Your task to perform on an android device: Do I have any events this weekend? Image 0: 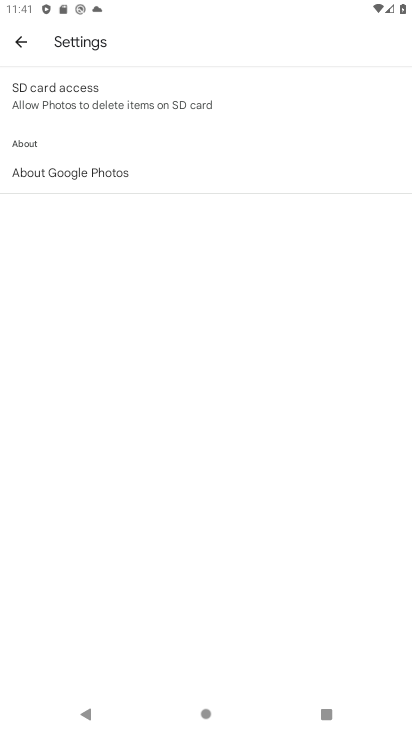
Step 0: press home button
Your task to perform on an android device: Do I have any events this weekend? Image 1: 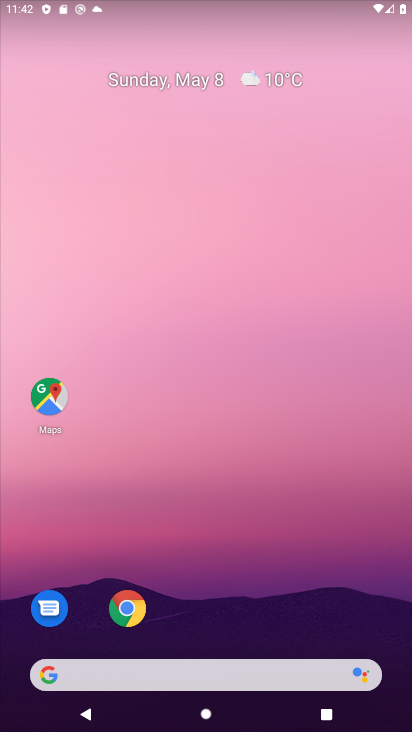
Step 1: drag from (301, 559) to (258, 118)
Your task to perform on an android device: Do I have any events this weekend? Image 2: 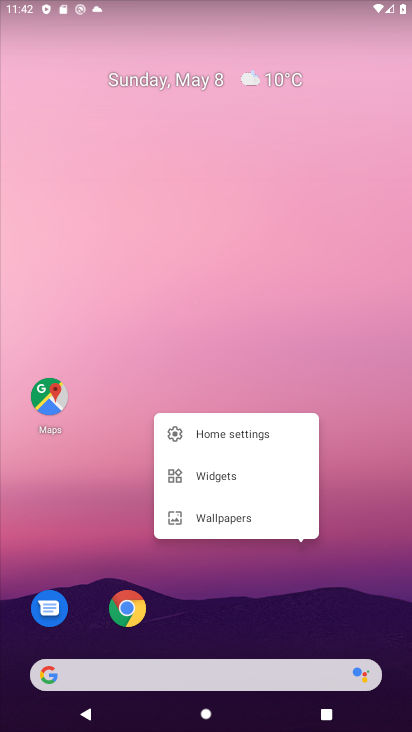
Step 2: click (152, 281)
Your task to perform on an android device: Do I have any events this weekend? Image 3: 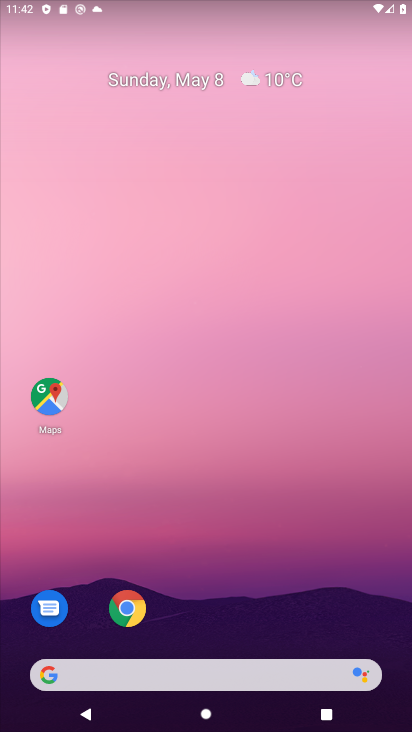
Step 3: drag from (244, 603) to (233, 77)
Your task to perform on an android device: Do I have any events this weekend? Image 4: 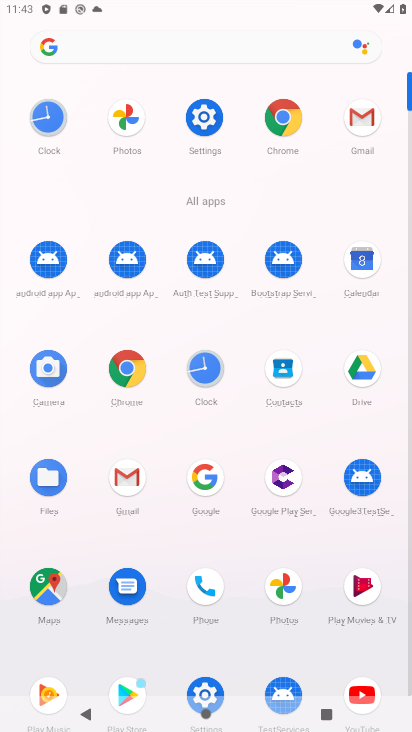
Step 4: click (213, 134)
Your task to perform on an android device: Do I have any events this weekend? Image 5: 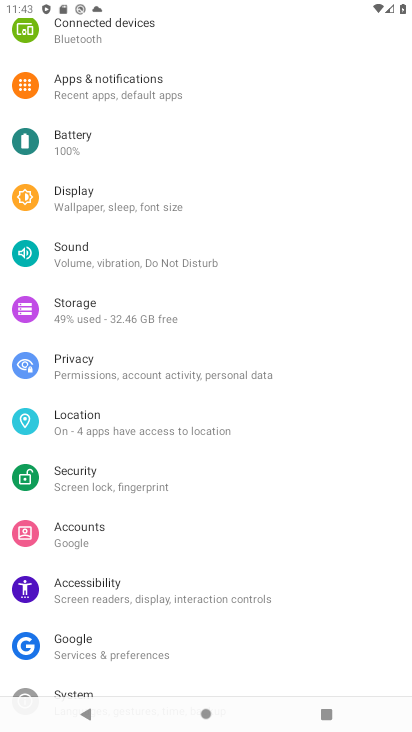
Step 5: press home button
Your task to perform on an android device: Do I have any events this weekend? Image 6: 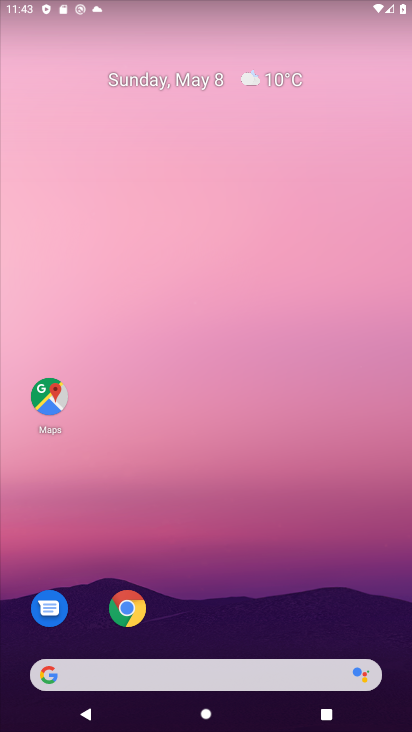
Step 6: drag from (245, 596) to (192, 227)
Your task to perform on an android device: Do I have any events this weekend? Image 7: 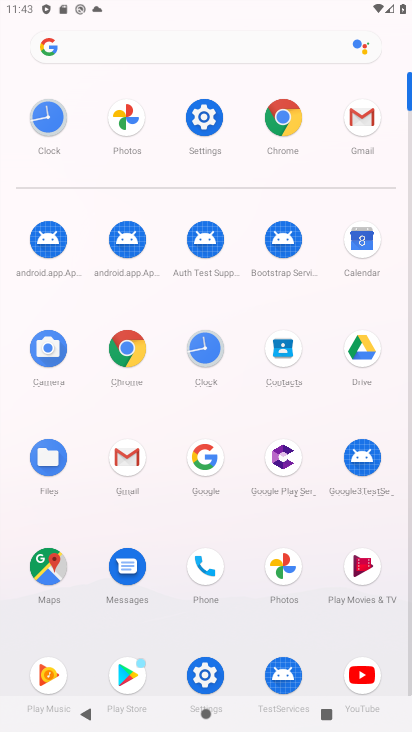
Step 7: click (360, 256)
Your task to perform on an android device: Do I have any events this weekend? Image 8: 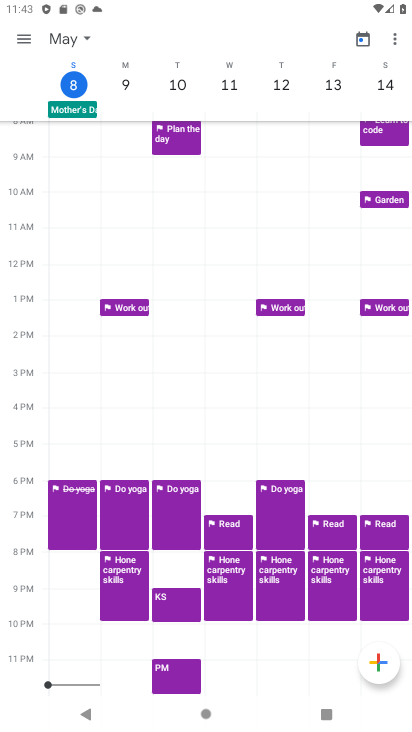
Step 8: task complete